Your task to perform on an android device: toggle show notifications on the lock screen Image 0: 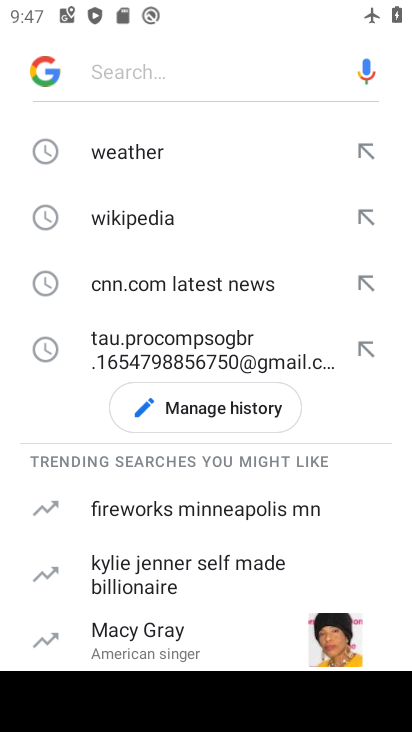
Step 0: press home button
Your task to perform on an android device: toggle show notifications on the lock screen Image 1: 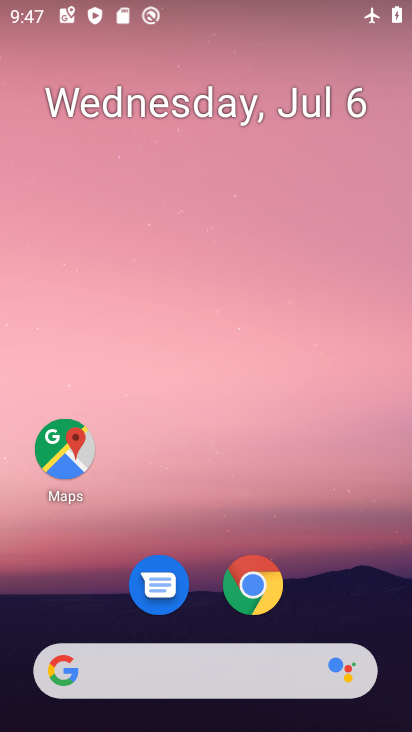
Step 1: drag from (189, 501) to (230, 39)
Your task to perform on an android device: toggle show notifications on the lock screen Image 2: 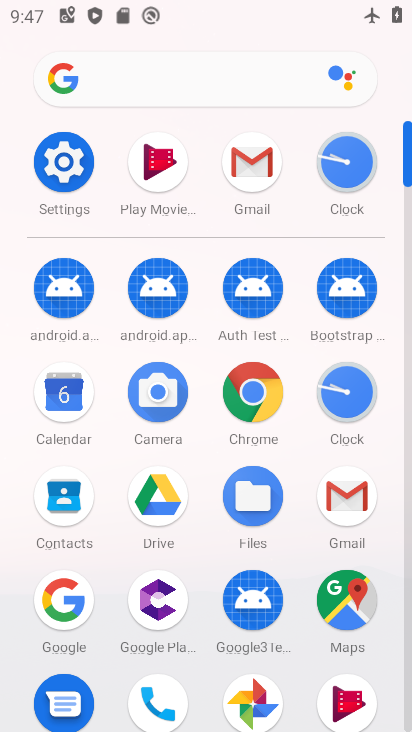
Step 2: click (58, 162)
Your task to perform on an android device: toggle show notifications on the lock screen Image 3: 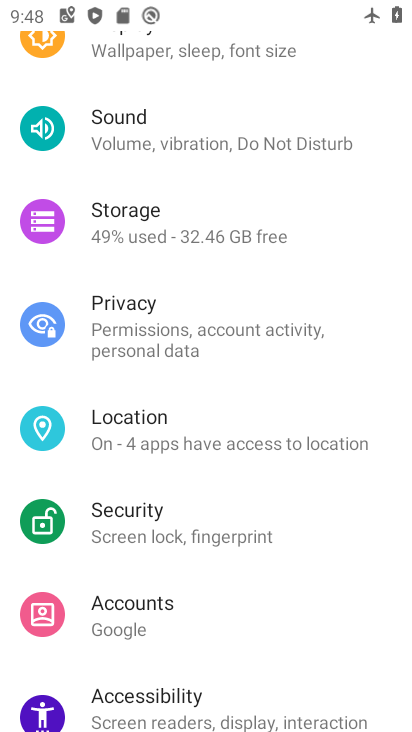
Step 3: drag from (248, 287) to (253, 608)
Your task to perform on an android device: toggle show notifications on the lock screen Image 4: 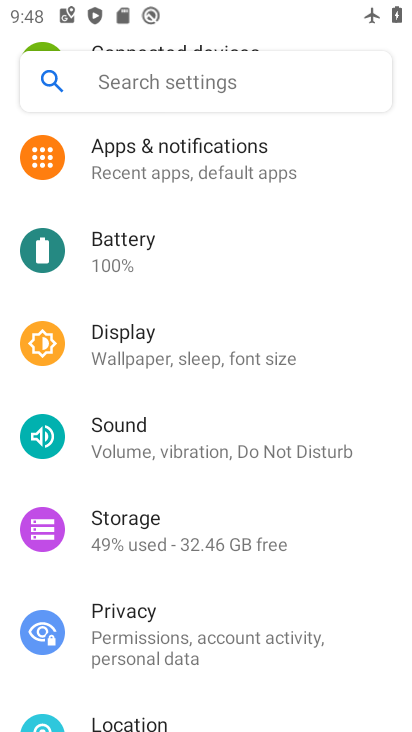
Step 4: click (249, 159)
Your task to perform on an android device: toggle show notifications on the lock screen Image 5: 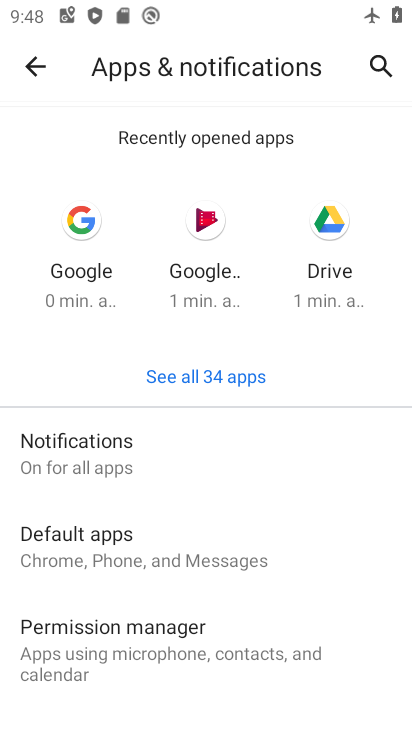
Step 5: click (89, 450)
Your task to perform on an android device: toggle show notifications on the lock screen Image 6: 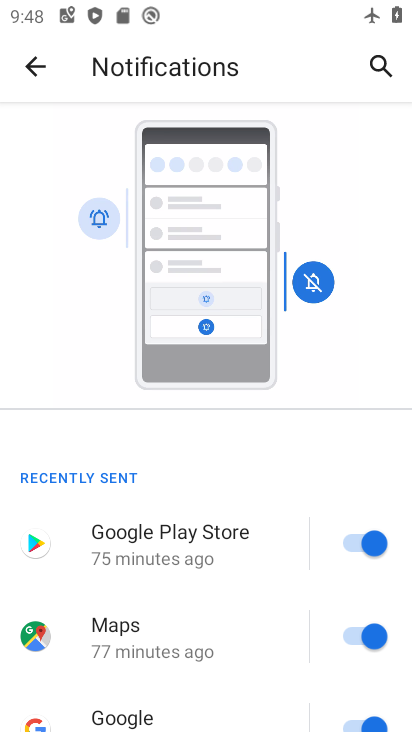
Step 6: drag from (211, 614) to (260, 213)
Your task to perform on an android device: toggle show notifications on the lock screen Image 7: 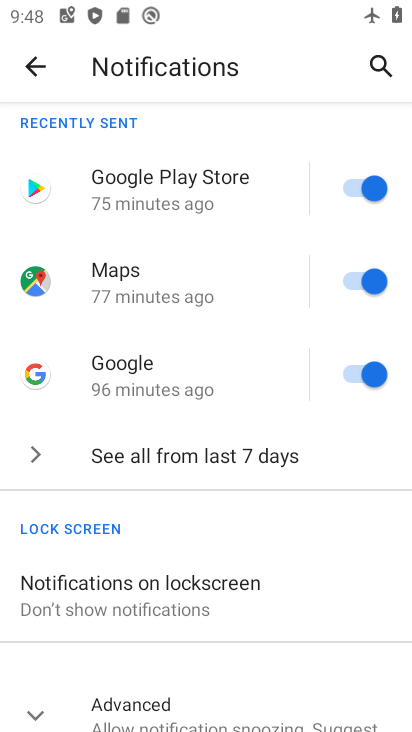
Step 7: click (151, 611)
Your task to perform on an android device: toggle show notifications on the lock screen Image 8: 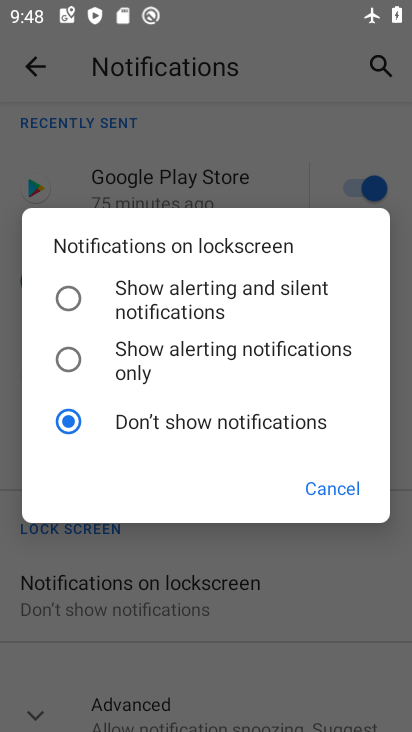
Step 8: click (70, 298)
Your task to perform on an android device: toggle show notifications on the lock screen Image 9: 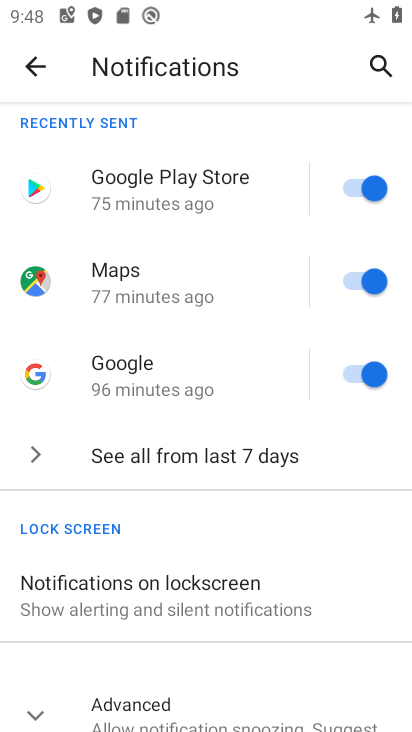
Step 9: task complete